Your task to perform on an android device: open device folders in google photos Image 0: 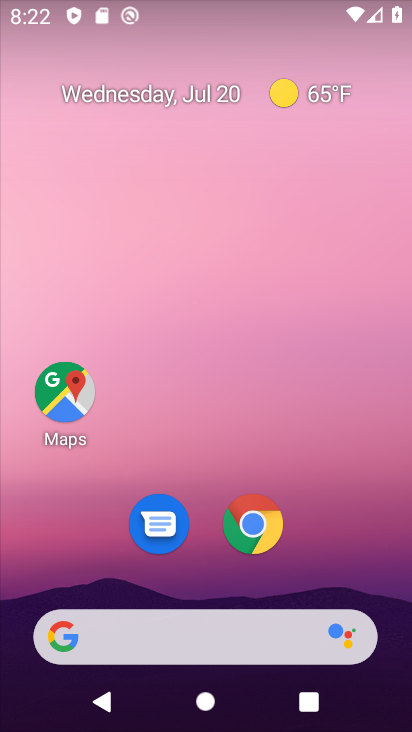
Step 0: drag from (315, 527) to (317, 34)
Your task to perform on an android device: open device folders in google photos Image 1: 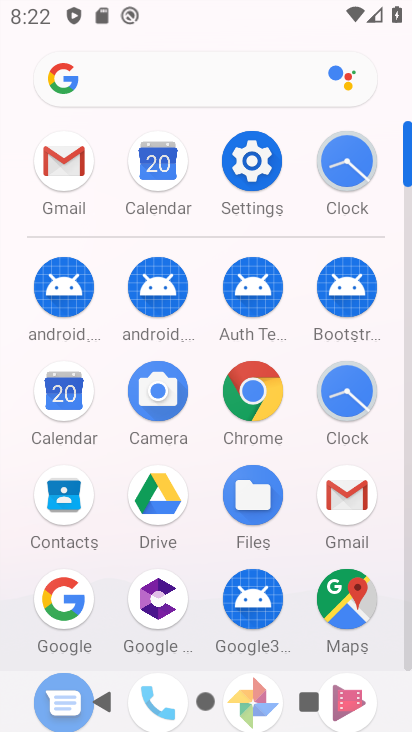
Step 1: drag from (211, 343) to (246, 52)
Your task to perform on an android device: open device folders in google photos Image 2: 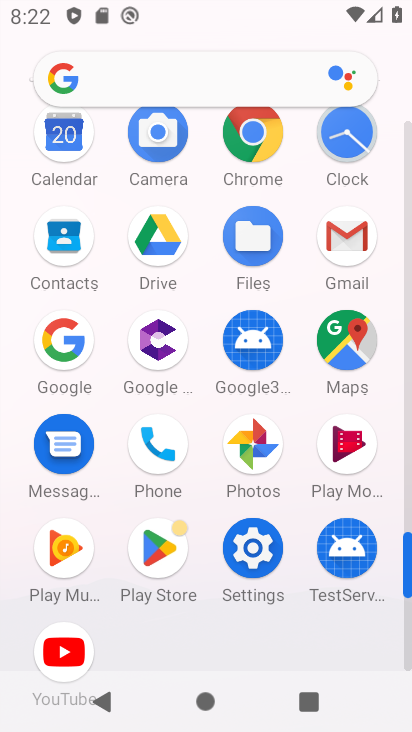
Step 2: click (251, 451)
Your task to perform on an android device: open device folders in google photos Image 3: 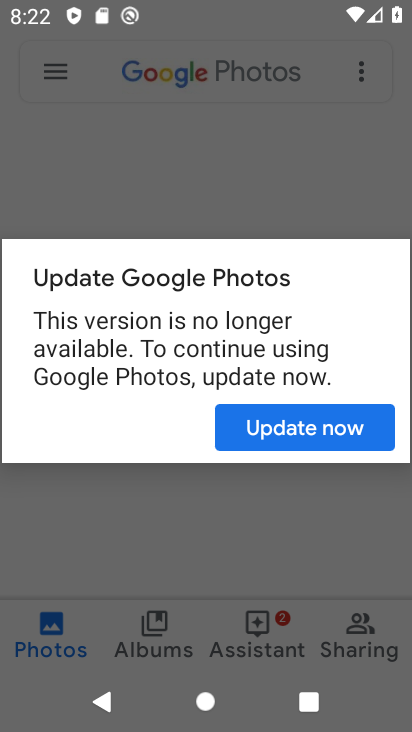
Step 3: click (326, 429)
Your task to perform on an android device: open device folders in google photos Image 4: 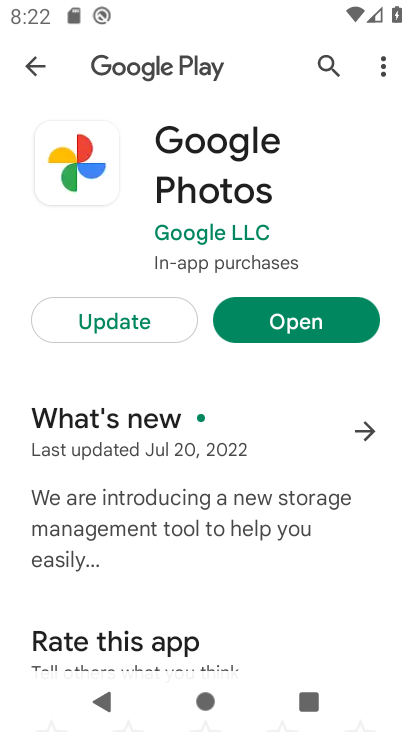
Step 4: click (345, 309)
Your task to perform on an android device: open device folders in google photos Image 5: 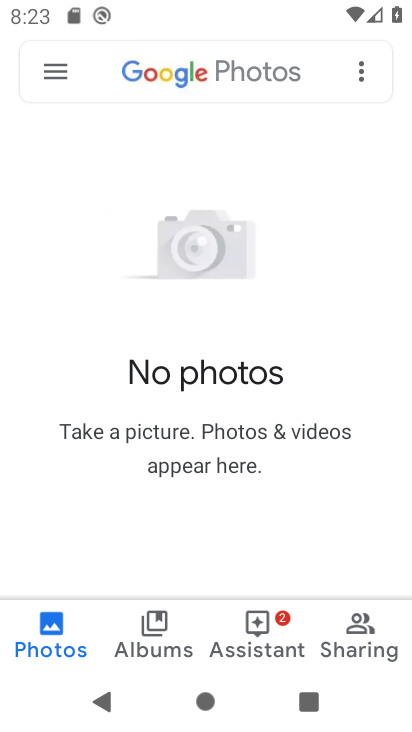
Step 5: click (62, 70)
Your task to perform on an android device: open device folders in google photos Image 6: 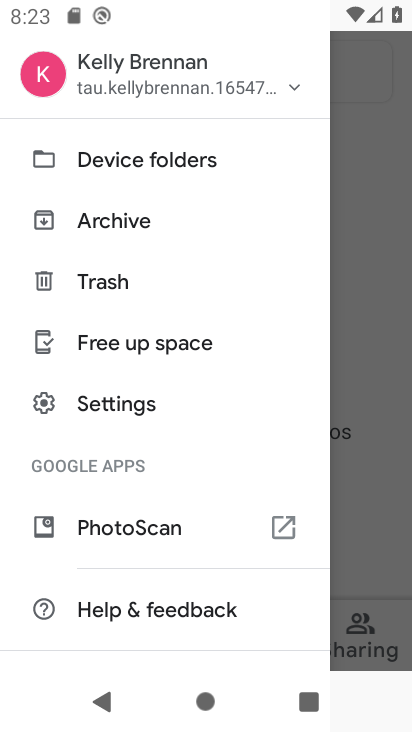
Step 6: click (128, 163)
Your task to perform on an android device: open device folders in google photos Image 7: 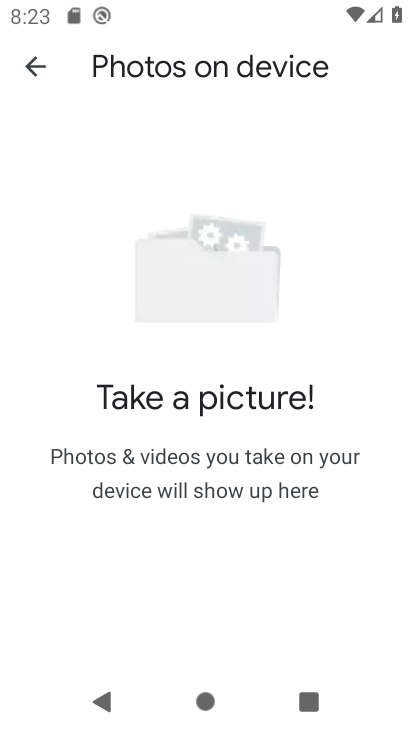
Step 7: task complete